Your task to perform on an android device: add a contact in the contacts app Image 0: 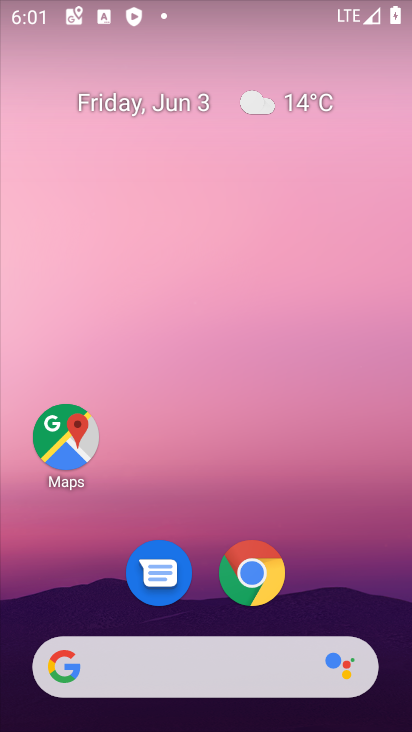
Step 0: drag from (267, 687) to (293, 15)
Your task to perform on an android device: add a contact in the contacts app Image 1: 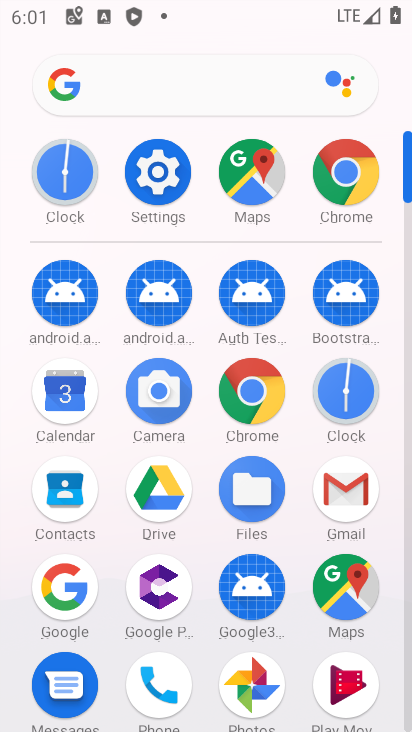
Step 1: click (89, 496)
Your task to perform on an android device: add a contact in the contacts app Image 2: 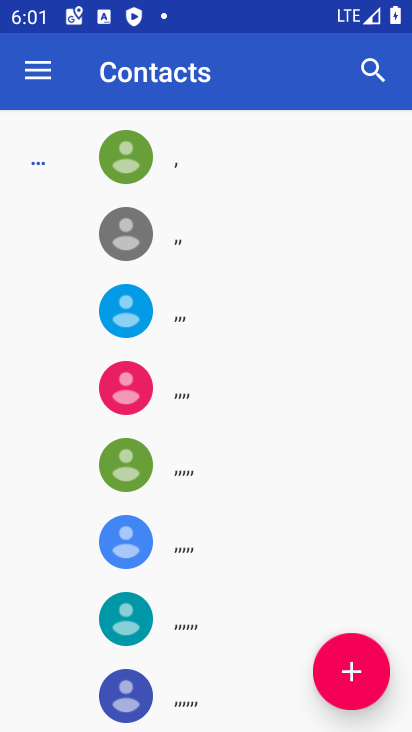
Step 2: click (347, 673)
Your task to perform on an android device: add a contact in the contacts app Image 3: 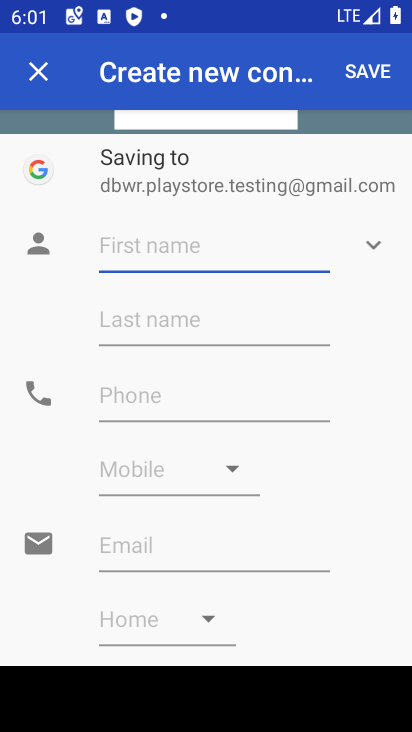
Step 3: click (233, 252)
Your task to perform on an android device: add a contact in the contacts app Image 4: 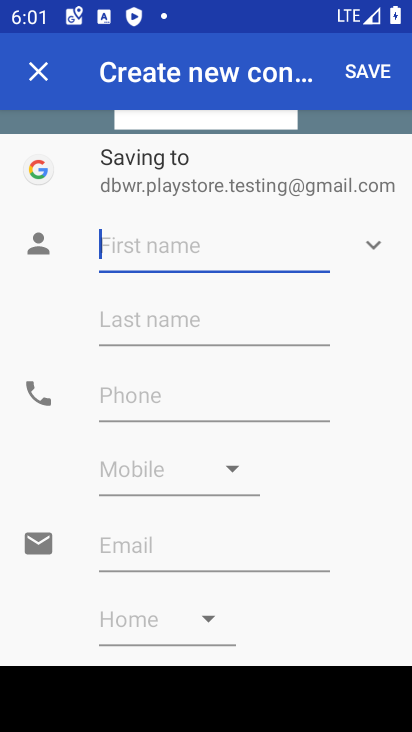
Step 4: type "ghfhfjygjh"
Your task to perform on an android device: add a contact in the contacts app Image 5: 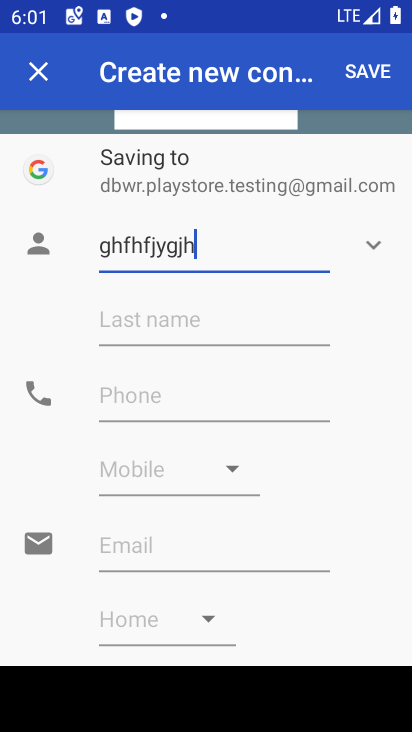
Step 5: click (213, 391)
Your task to perform on an android device: add a contact in the contacts app Image 6: 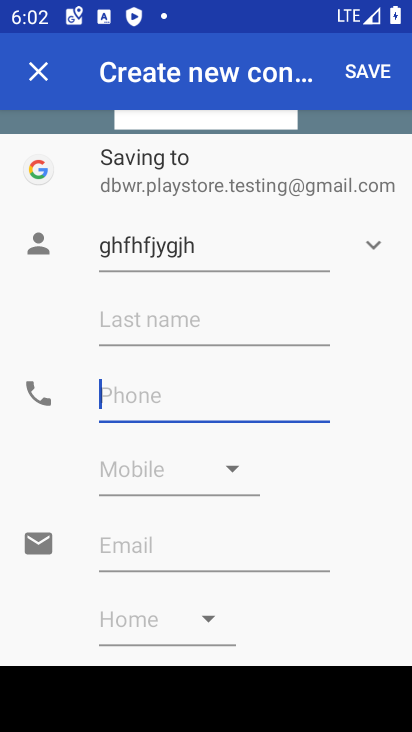
Step 6: click (237, 404)
Your task to perform on an android device: add a contact in the contacts app Image 7: 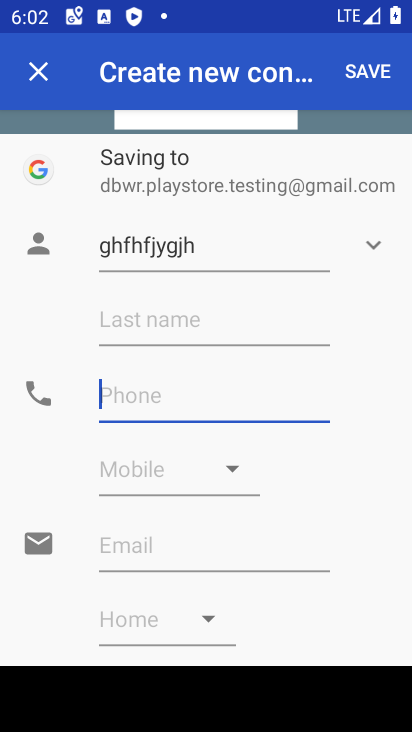
Step 7: type "9766578788"
Your task to perform on an android device: add a contact in the contacts app Image 8: 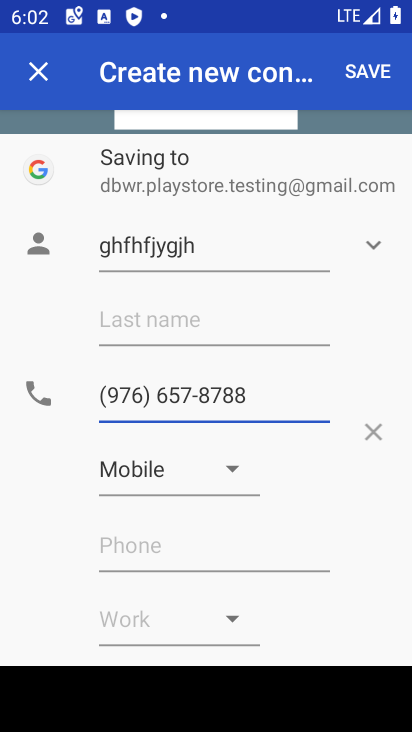
Step 8: task complete